Your task to perform on an android device: Open calendar and show me the first week of next month Image 0: 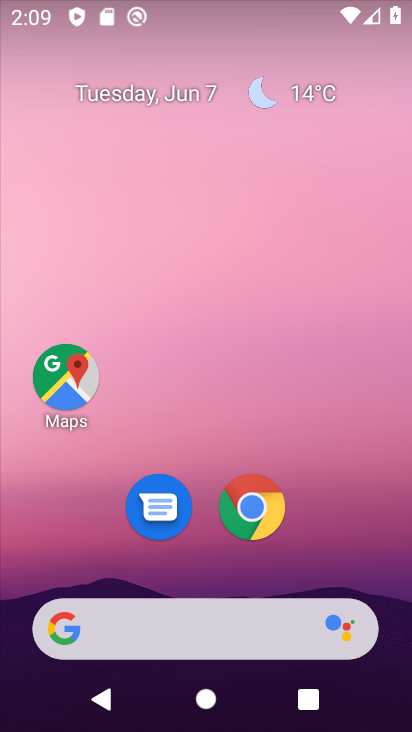
Step 0: drag from (330, 506) to (312, 130)
Your task to perform on an android device: Open calendar and show me the first week of next month Image 1: 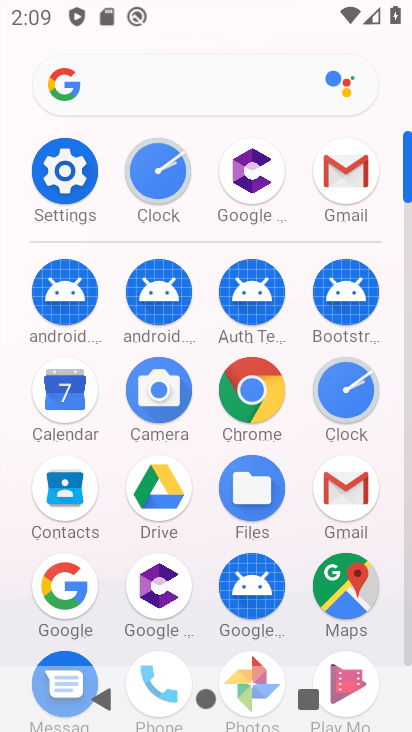
Step 1: click (77, 401)
Your task to perform on an android device: Open calendar and show me the first week of next month Image 2: 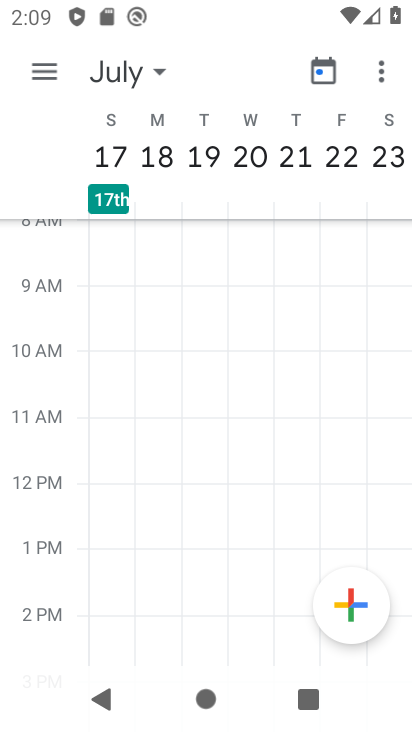
Step 2: click (382, 69)
Your task to perform on an android device: Open calendar and show me the first week of next month Image 3: 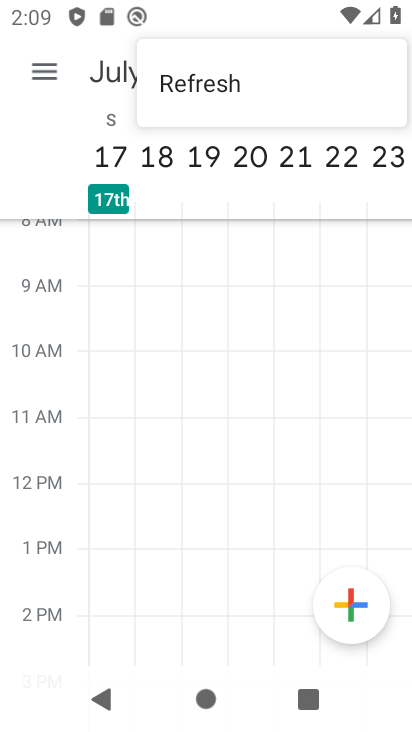
Step 3: click (46, 64)
Your task to perform on an android device: Open calendar and show me the first week of next month Image 4: 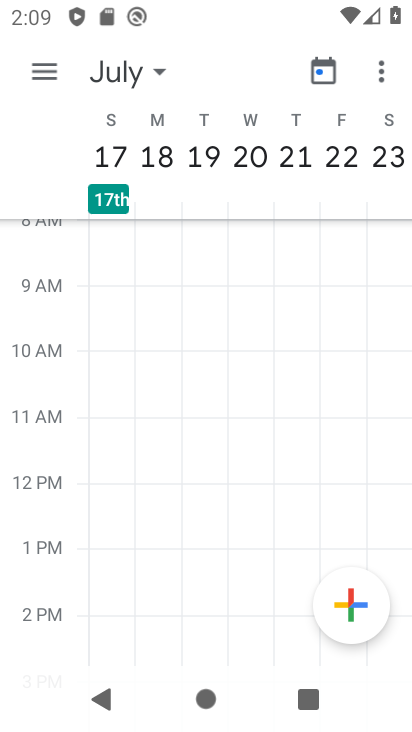
Step 4: click (129, 85)
Your task to perform on an android device: Open calendar and show me the first week of next month Image 5: 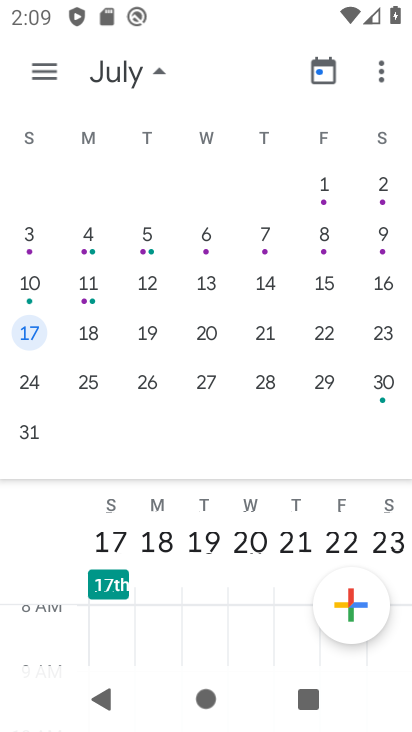
Step 5: click (31, 237)
Your task to perform on an android device: Open calendar and show me the first week of next month Image 6: 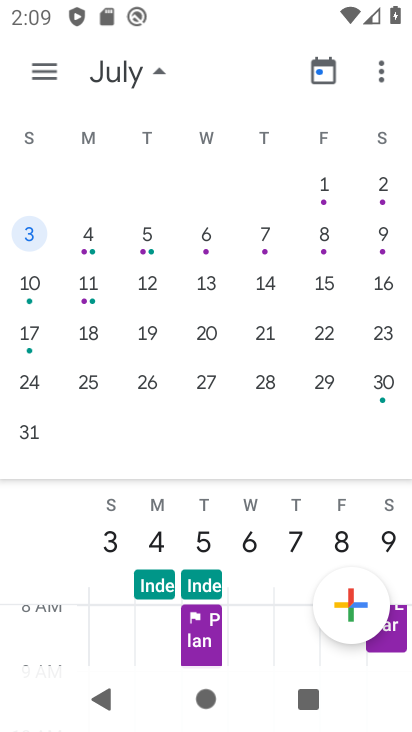
Step 6: task complete